Your task to perform on an android device: Go to CNN.com Image 0: 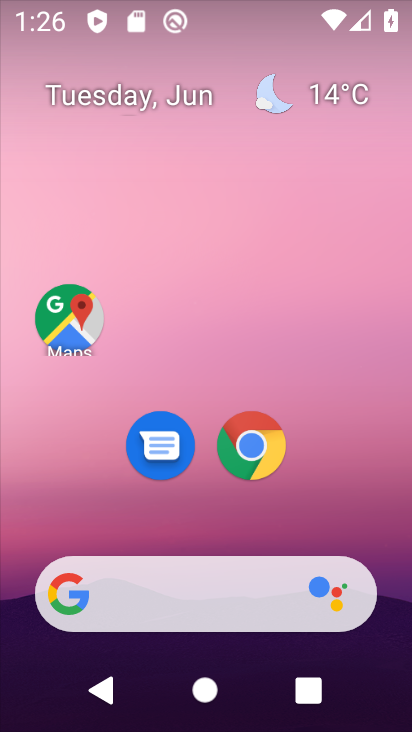
Step 0: press home button
Your task to perform on an android device: Go to CNN.com Image 1: 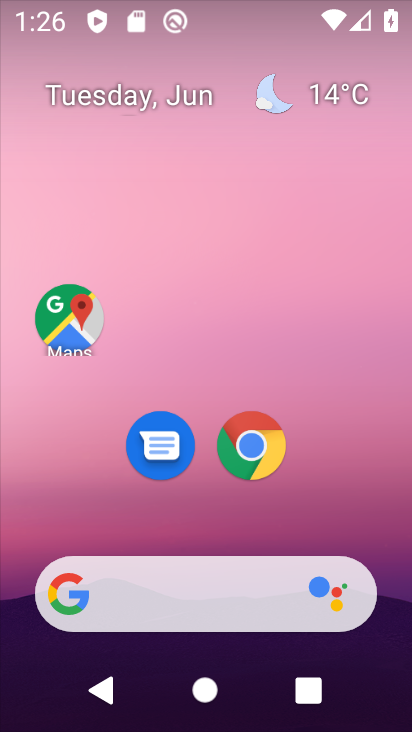
Step 1: drag from (296, 476) to (304, 118)
Your task to perform on an android device: Go to CNN.com Image 2: 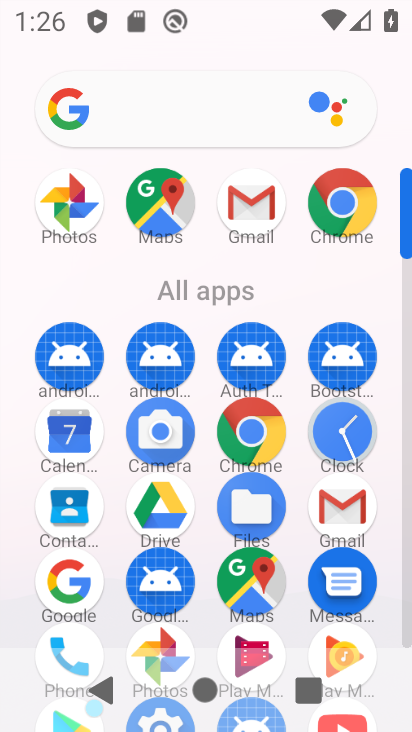
Step 2: click (249, 437)
Your task to perform on an android device: Go to CNN.com Image 3: 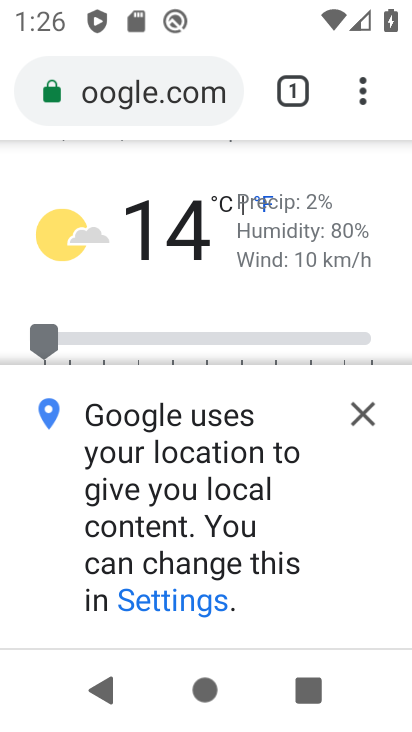
Step 3: click (190, 93)
Your task to perform on an android device: Go to CNN.com Image 4: 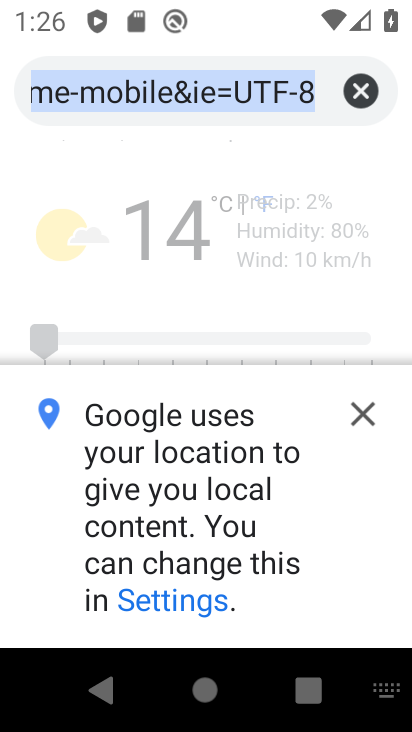
Step 4: click (353, 95)
Your task to perform on an android device: Go to CNN.com Image 5: 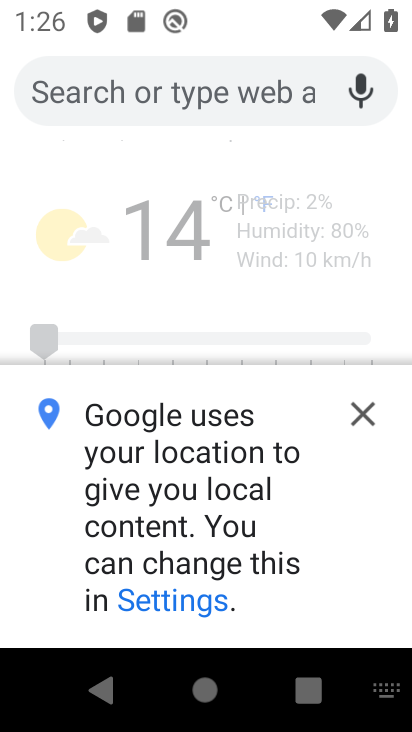
Step 5: type "cnn.com"
Your task to perform on an android device: Go to CNN.com Image 6: 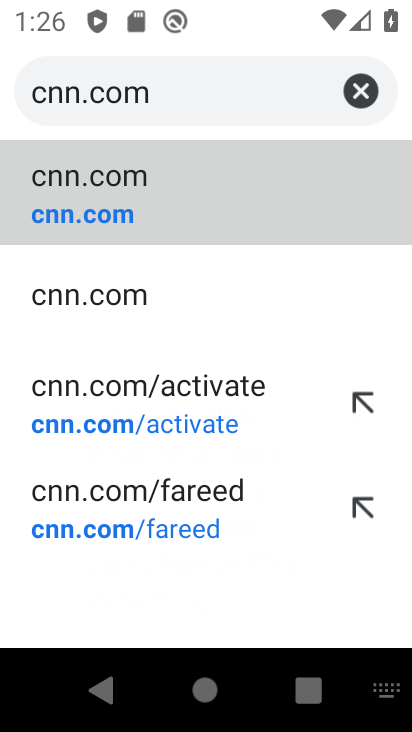
Step 6: click (157, 202)
Your task to perform on an android device: Go to CNN.com Image 7: 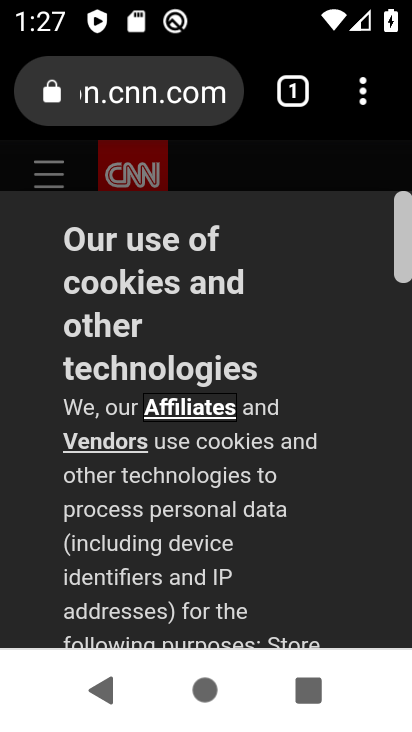
Step 7: task complete